Your task to perform on an android device: Open Android settings Image 0: 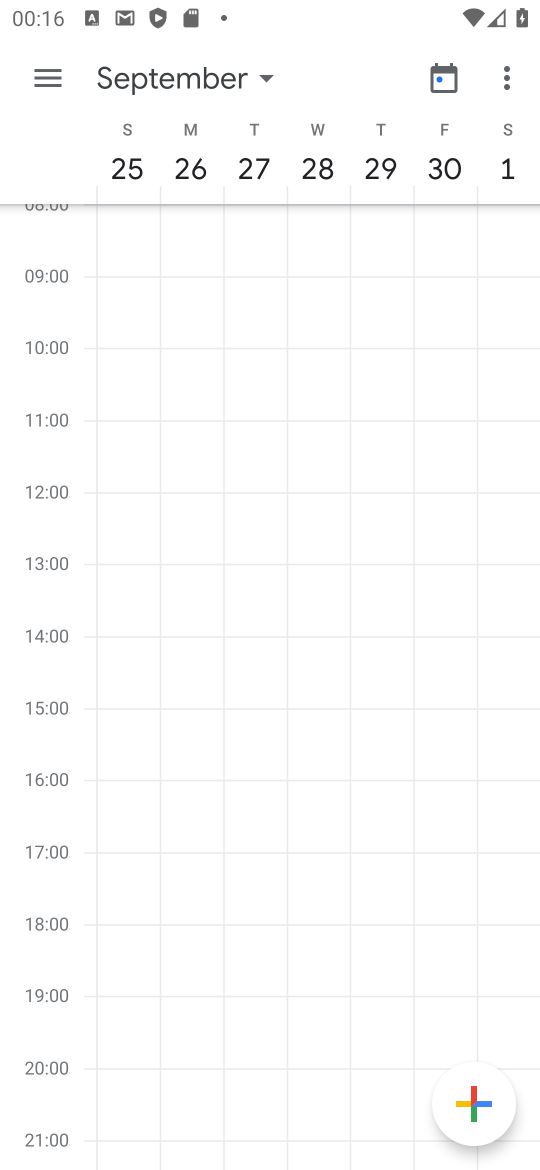
Step 0: press home button
Your task to perform on an android device: Open Android settings Image 1: 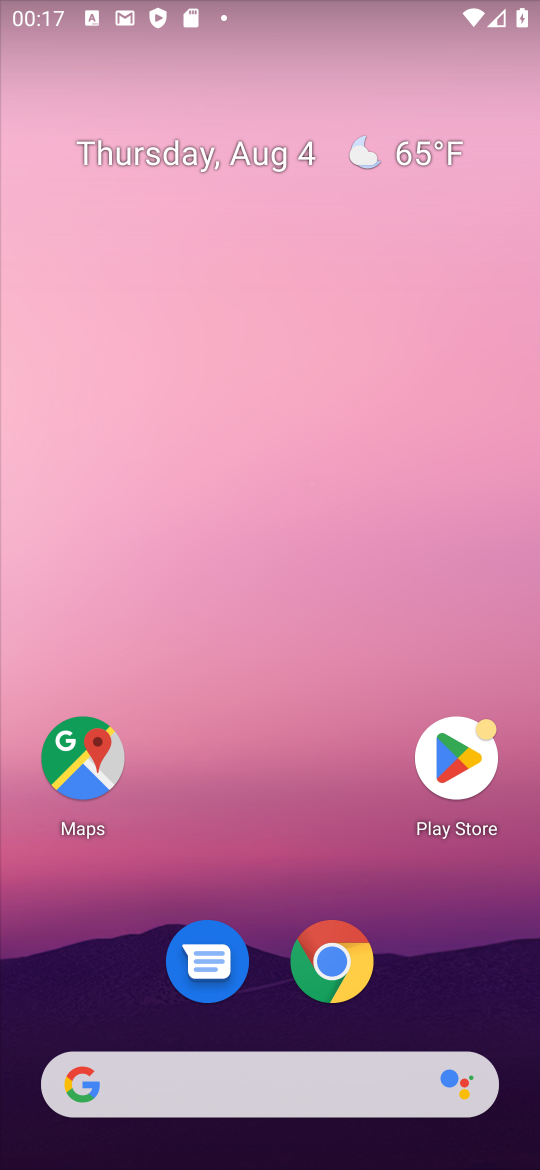
Step 1: drag from (268, 780) to (381, 35)
Your task to perform on an android device: Open Android settings Image 2: 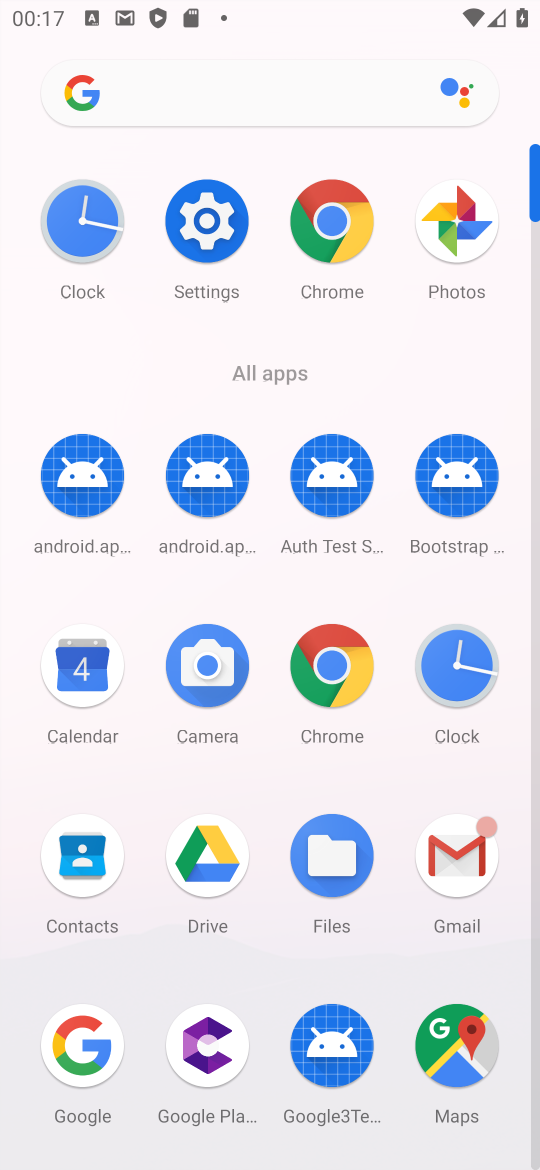
Step 2: click (216, 207)
Your task to perform on an android device: Open Android settings Image 3: 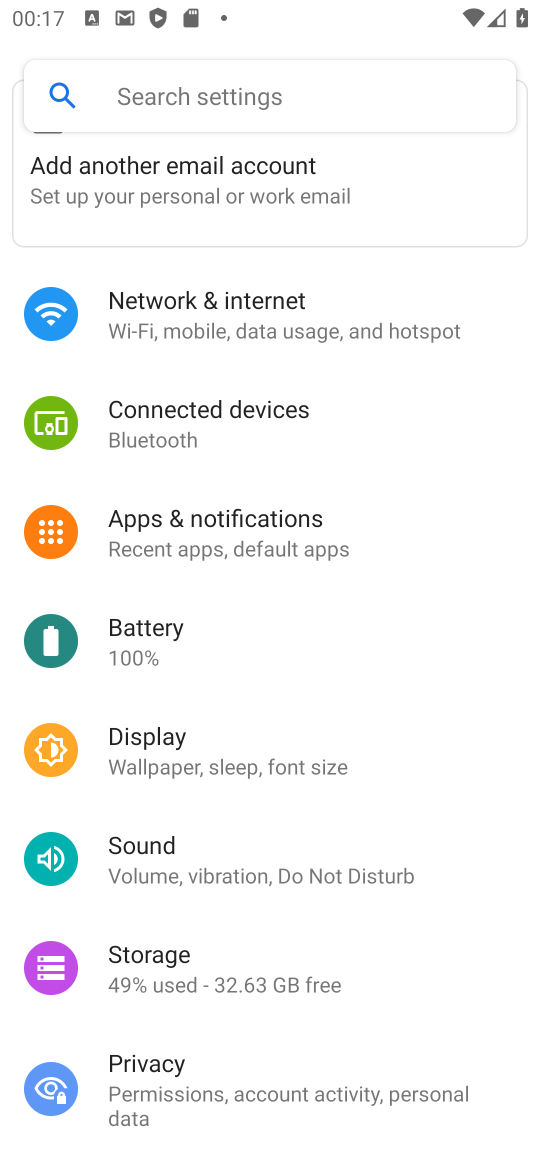
Step 3: drag from (249, 1004) to (261, 11)
Your task to perform on an android device: Open Android settings Image 4: 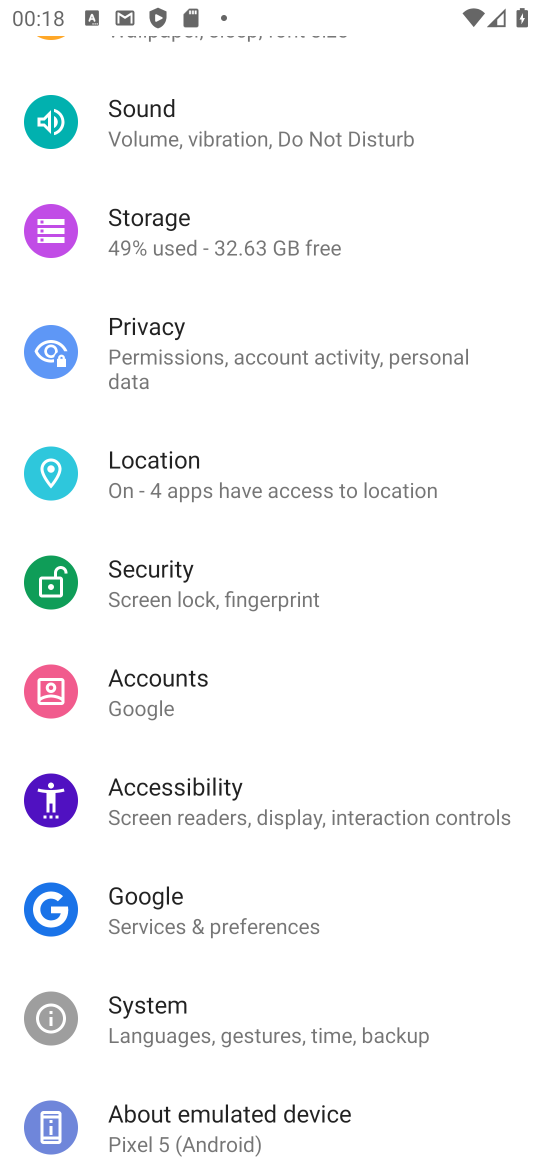
Step 4: click (241, 1121)
Your task to perform on an android device: Open Android settings Image 5: 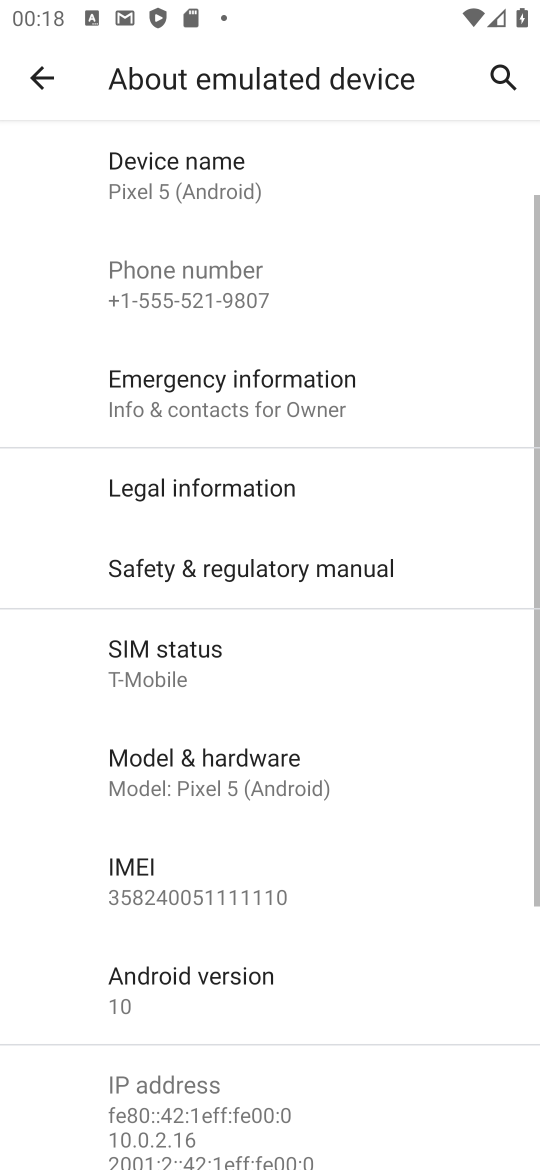
Step 5: task complete